Your task to perform on an android device: check the backup settings in the google photos Image 0: 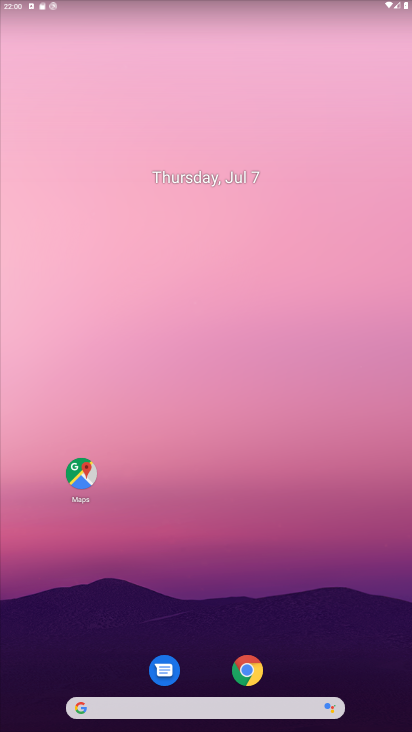
Step 0: press home button
Your task to perform on an android device: check the backup settings in the google photos Image 1: 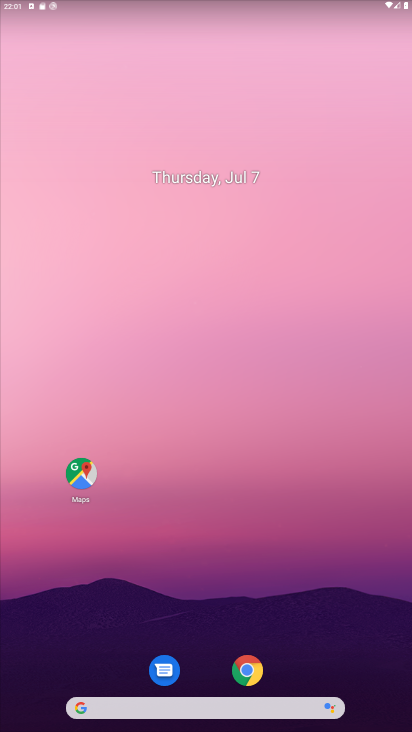
Step 1: task complete